Your task to perform on an android device: toggle improve location accuracy Image 0: 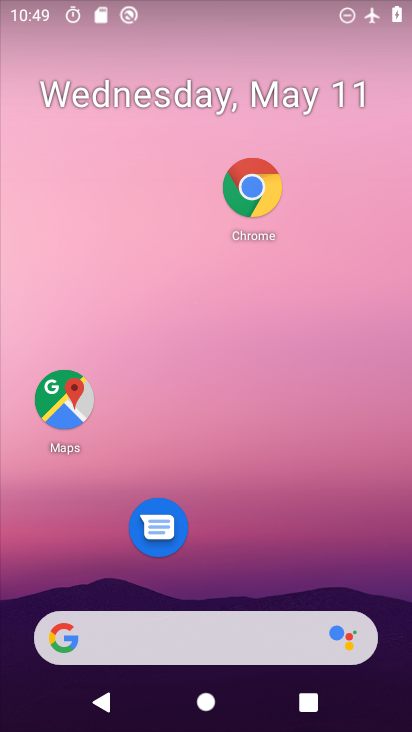
Step 0: drag from (285, 603) to (213, 0)
Your task to perform on an android device: toggle improve location accuracy Image 1: 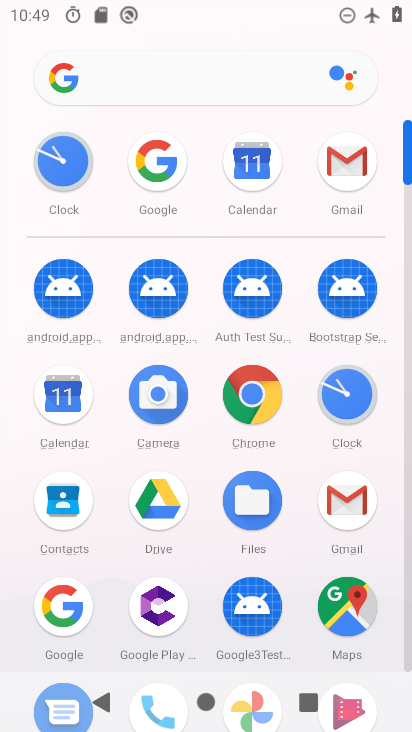
Step 1: drag from (176, 517) to (186, 234)
Your task to perform on an android device: toggle improve location accuracy Image 2: 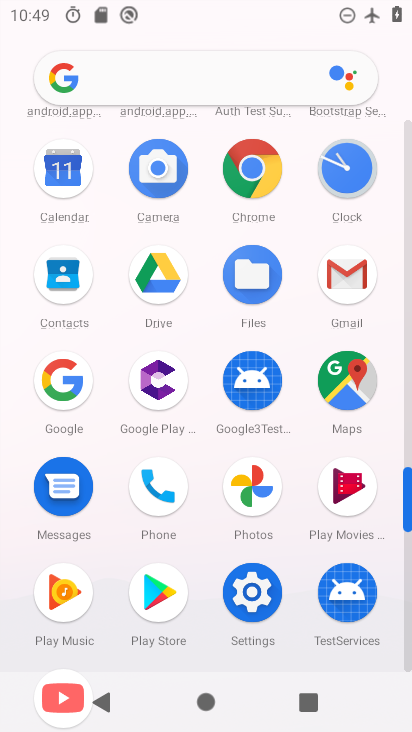
Step 2: click (274, 608)
Your task to perform on an android device: toggle improve location accuracy Image 3: 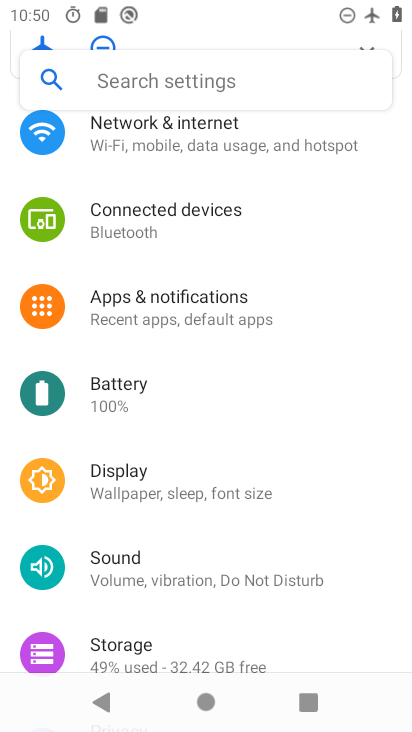
Step 3: drag from (202, 560) to (207, 238)
Your task to perform on an android device: toggle improve location accuracy Image 4: 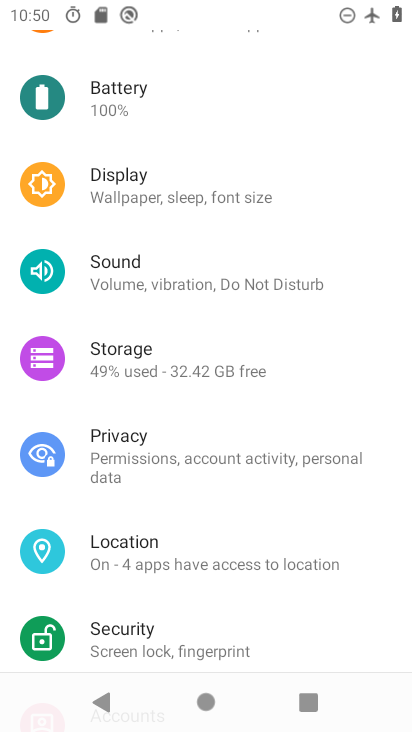
Step 4: click (196, 562)
Your task to perform on an android device: toggle improve location accuracy Image 5: 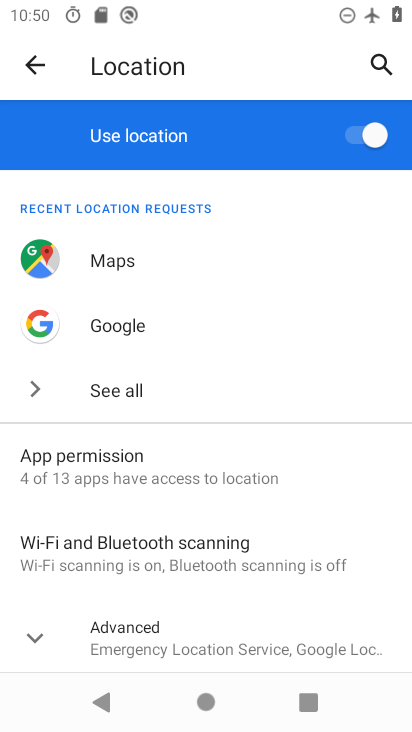
Step 5: click (167, 636)
Your task to perform on an android device: toggle improve location accuracy Image 6: 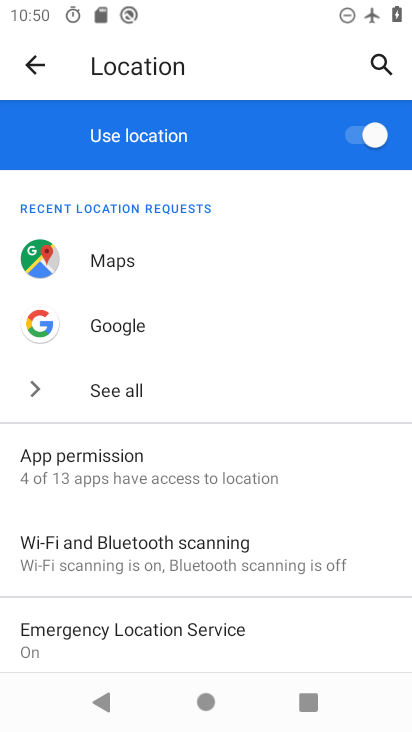
Step 6: drag from (180, 582) to (210, 269)
Your task to perform on an android device: toggle improve location accuracy Image 7: 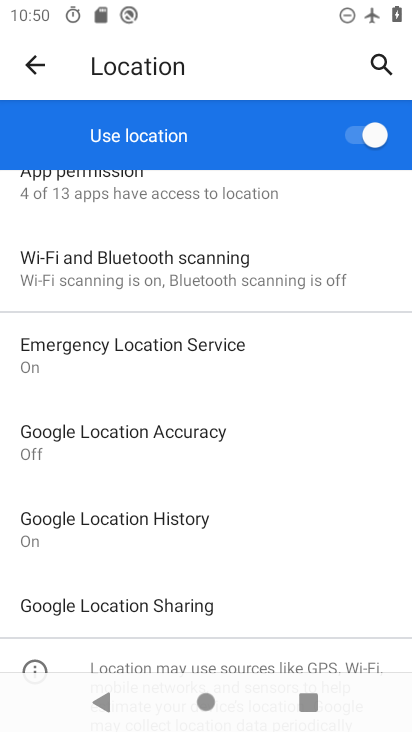
Step 7: click (195, 454)
Your task to perform on an android device: toggle improve location accuracy Image 8: 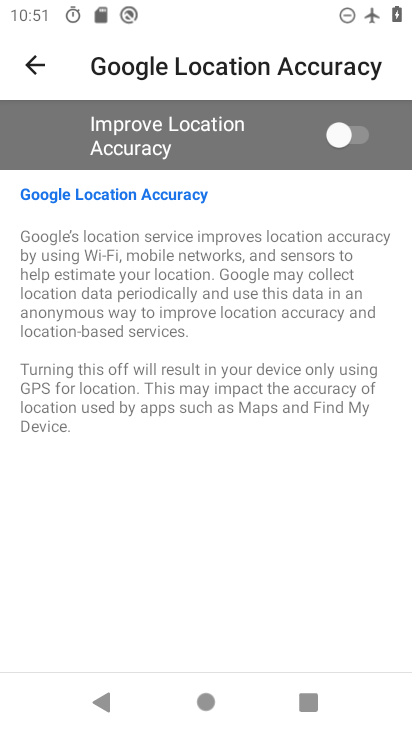
Step 8: click (357, 150)
Your task to perform on an android device: toggle improve location accuracy Image 9: 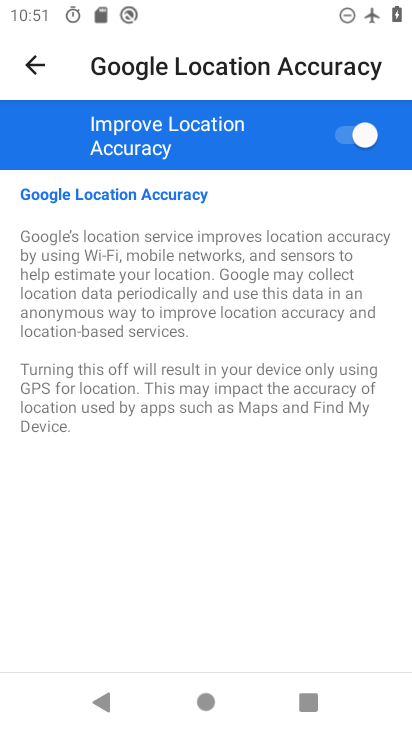
Step 9: task complete